Your task to perform on an android device: change text size in settings app Image 0: 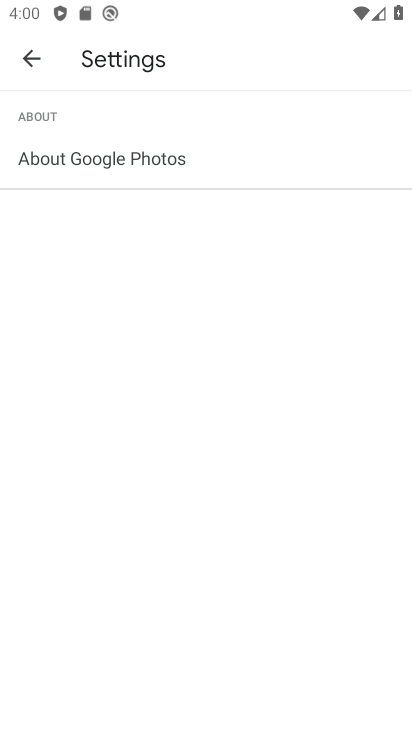
Step 0: press back button
Your task to perform on an android device: change text size in settings app Image 1: 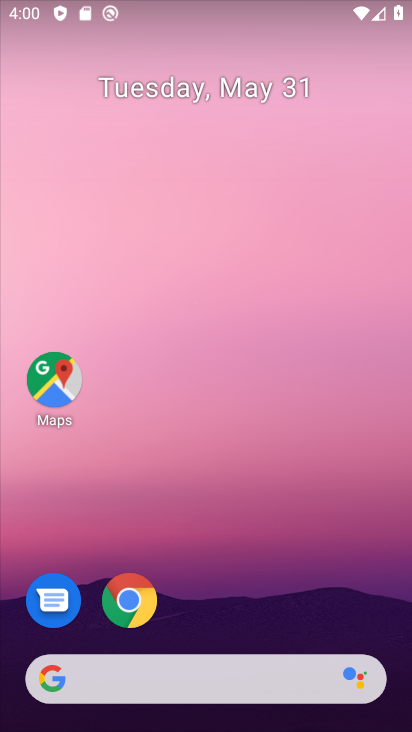
Step 1: drag from (236, 606) to (164, 136)
Your task to perform on an android device: change text size in settings app Image 2: 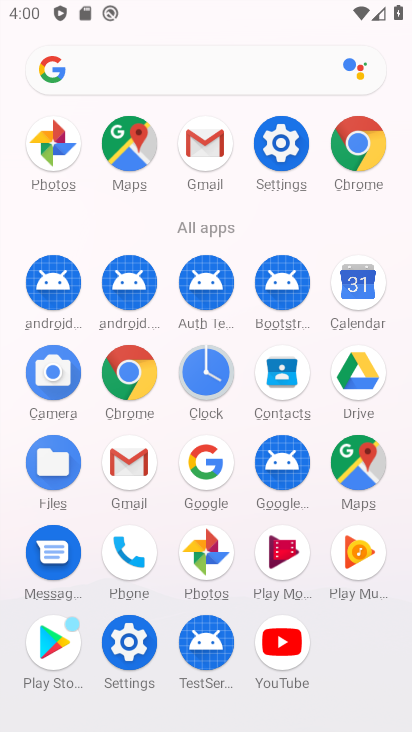
Step 2: click (282, 144)
Your task to perform on an android device: change text size in settings app Image 3: 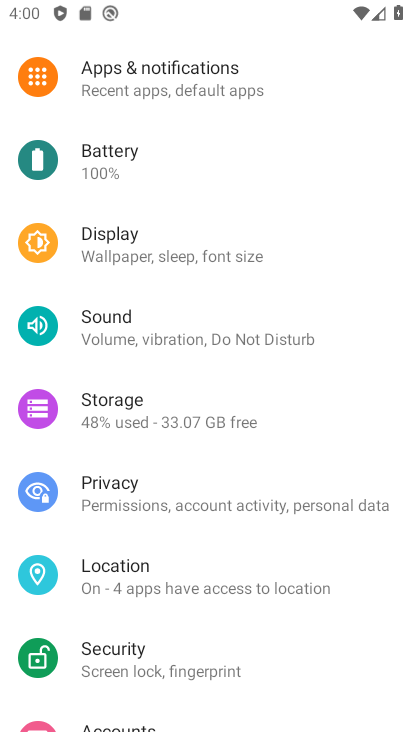
Step 3: drag from (154, 448) to (177, 301)
Your task to perform on an android device: change text size in settings app Image 4: 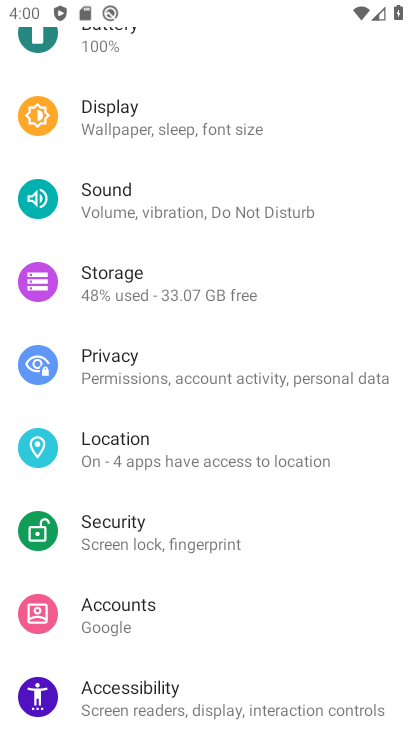
Step 4: drag from (158, 512) to (203, 372)
Your task to perform on an android device: change text size in settings app Image 5: 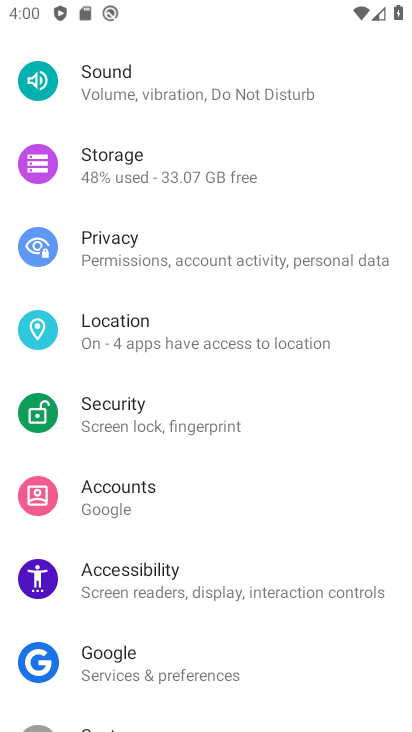
Step 5: click (136, 591)
Your task to perform on an android device: change text size in settings app Image 6: 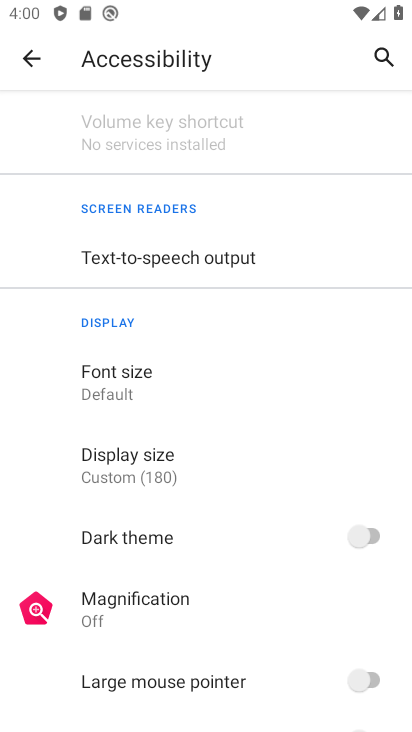
Step 6: click (148, 376)
Your task to perform on an android device: change text size in settings app Image 7: 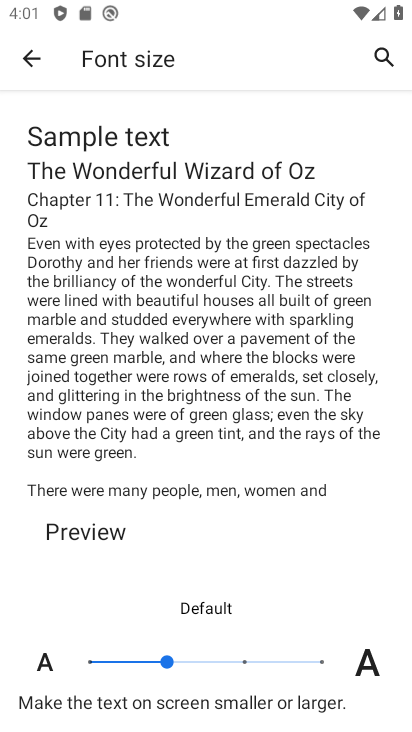
Step 7: click (235, 655)
Your task to perform on an android device: change text size in settings app Image 8: 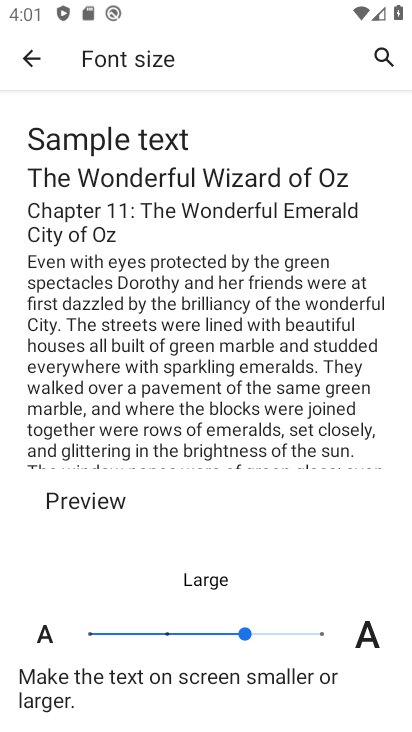
Step 8: task complete